Your task to perform on an android device: turn on bluetooth scan Image 0: 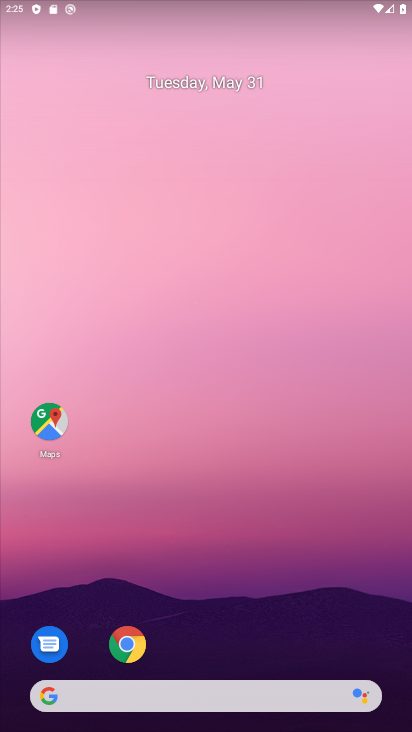
Step 0: drag from (266, 664) to (265, 51)
Your task to perform on an android device: turn on bluetooth scan Image 1: 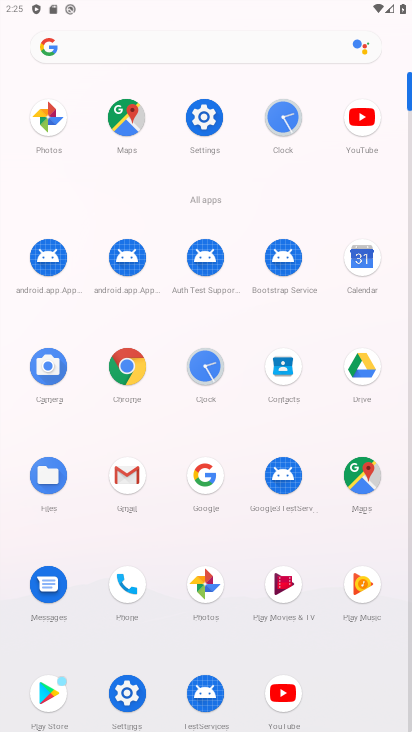
Step 1: click (196, 125)
Your task to perform on an android device: turn on bluetooth scan Image 2: 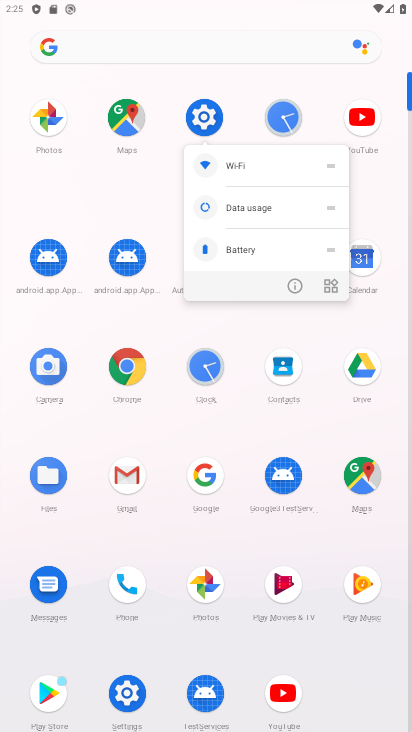
Step 2: click (205, 118)
Your task to perform on an android device: turn on bluetooth scan Image 3: 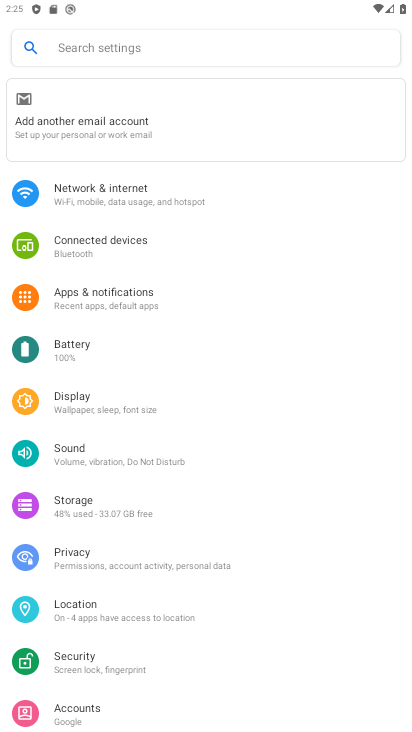
Step 3: click (90, 616)
Your task to perform on an android device: turn on bluetooth scan Image 4: 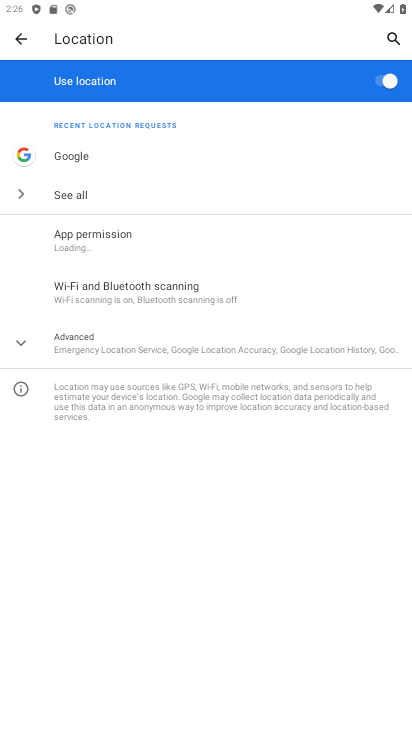
Step 4: click (97, 287)
Your task to perform on an android device: turn on bluetooth scan Image 5: 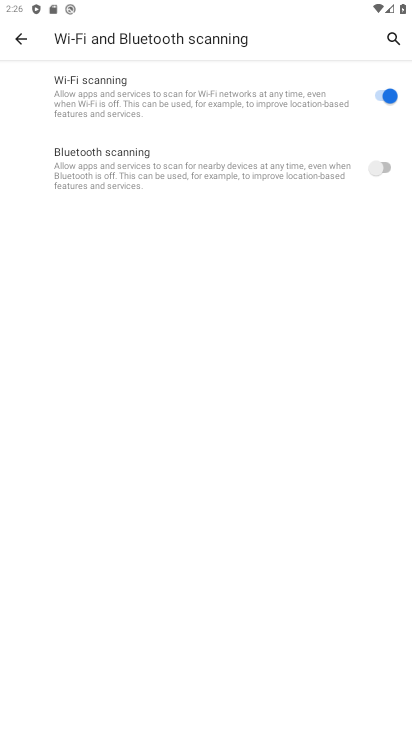
Step 5: click (376, 163)
Your task to perform on an android device: turn on bluetooth scan Image 6: 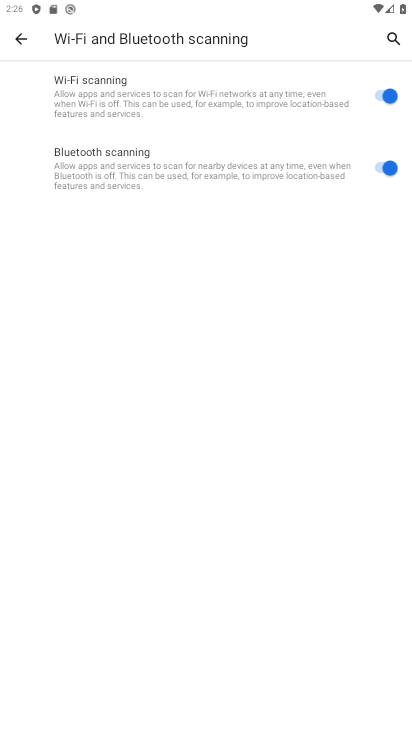
Step 6: task complete